Your task to perform on an android device: turn on improve location accuracy Image 0: 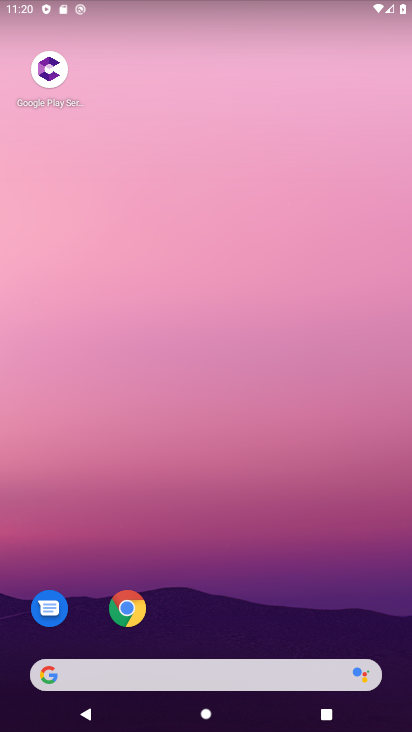
Step 0: drag from (337, 624) to (348, 248)
Your task to perform on an android device: turn on improve location accuracy Image 1: 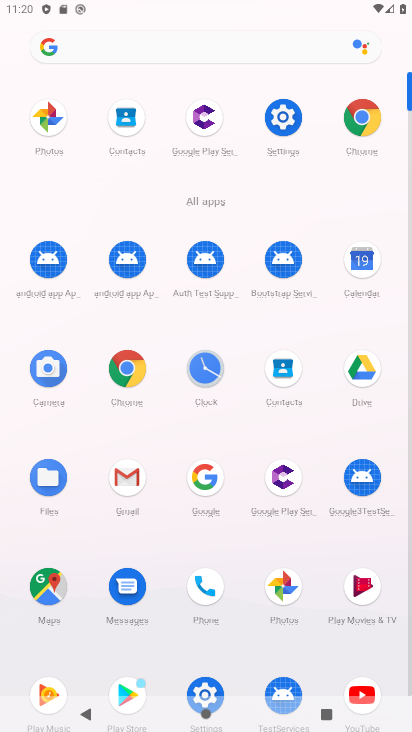
Step 1: click (134, 379)
Your task to perform on an android device: turn on improve location accuracy Image 2: 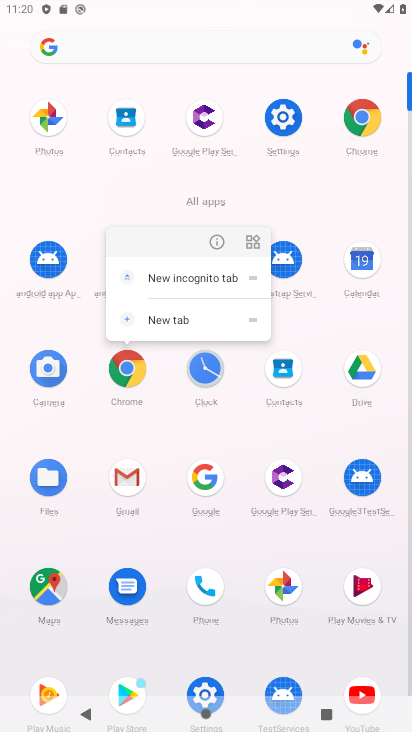
Step 2: click (134, 379)
Your task to perform on an android device: turn on improve location accuracy Image 3: 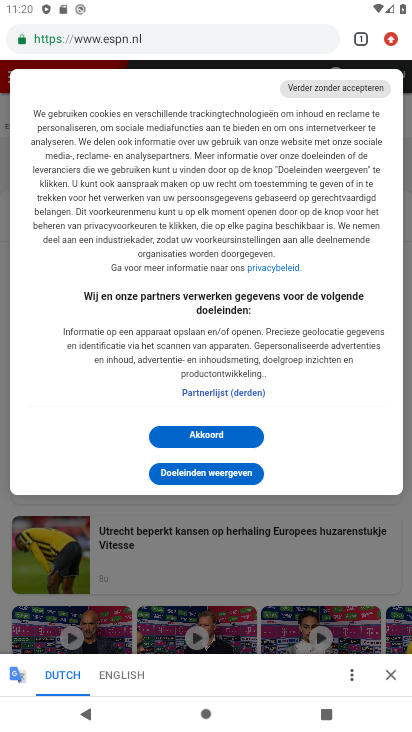
Step 3: press home button
Your task to perform on an android device: turn on improve location accuracy Image 4: 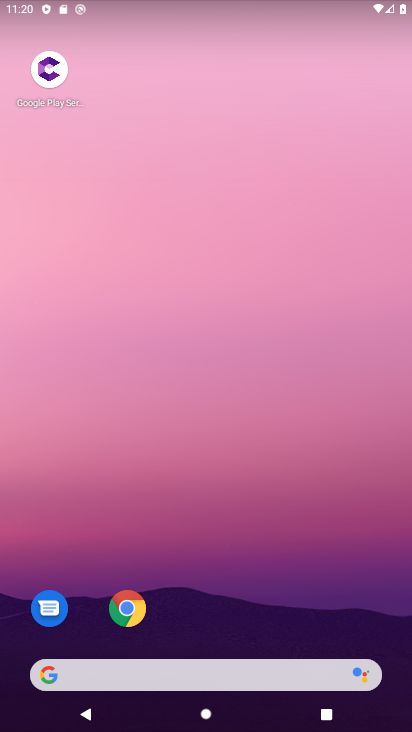
Step 4: drag from (386, 595) to (368, 240)
Your task to perform on an android device: turn on improve location accuracy Image 5: 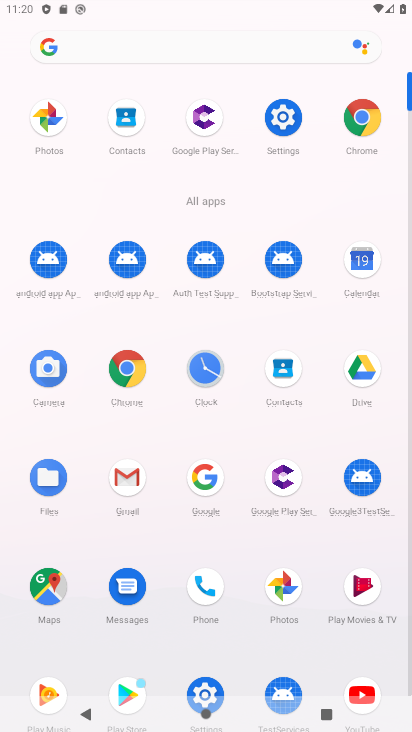
Step 5: click (297, 136)
Your task to perform on an android device: turn on improve location accuracy Image 6: 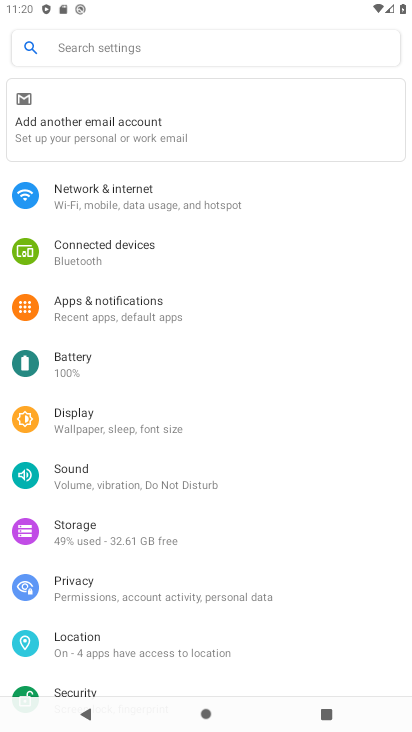
Step 6: drag from (340, 488) to (335, 358)
Your task to perform on an android device: turn on improve location accuracy Image 7: 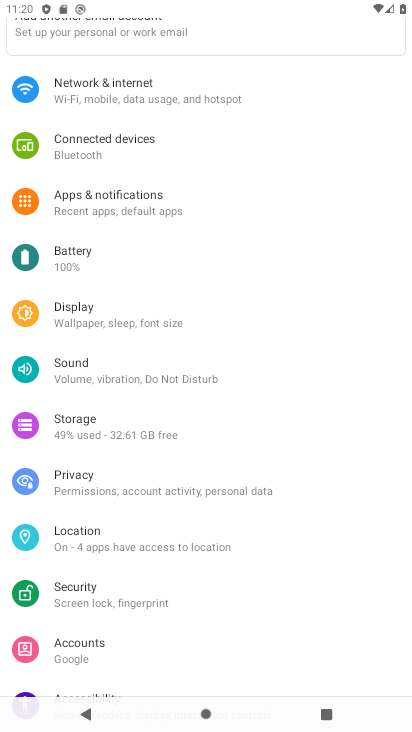
Step 7: drag from (358, 514) to (363, 360)
Your task to perform on an android device: turn on improve location accuracy Image 8: 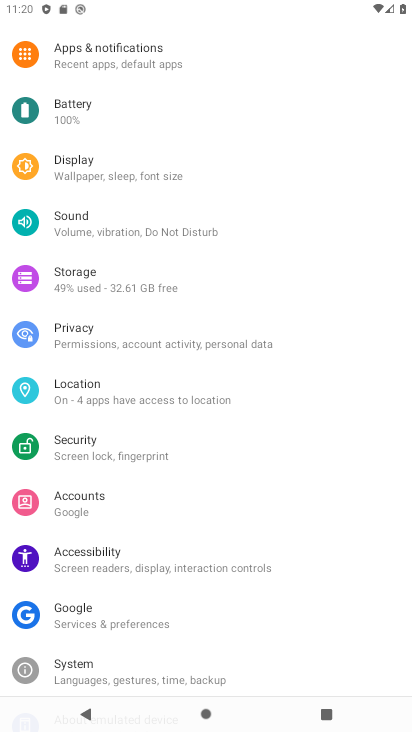
Step 8: drag from (347, 519) to (354, 416)
Your task to perform on an android device: turn on improve location accuracy Image 9: 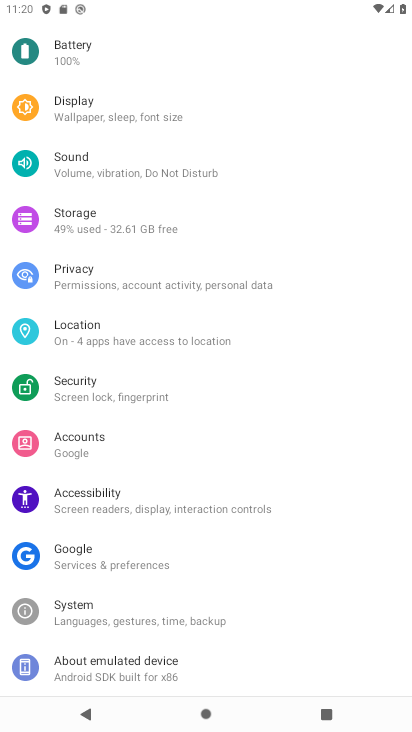
Step 9: drag from (357, 552) to (365, 427)
Your task to perform on an android device: turn on improve location accuracy Image 10: 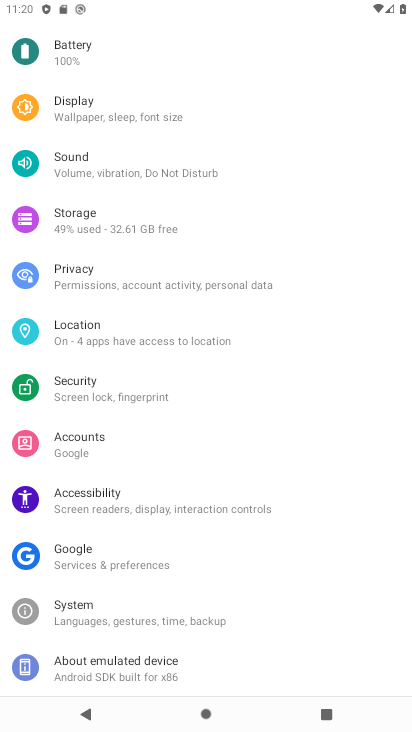
Step 10: drag from (346, 570) to (370, 390)
Your task to perform on an android device: turn on improve location accuracy Image 11: 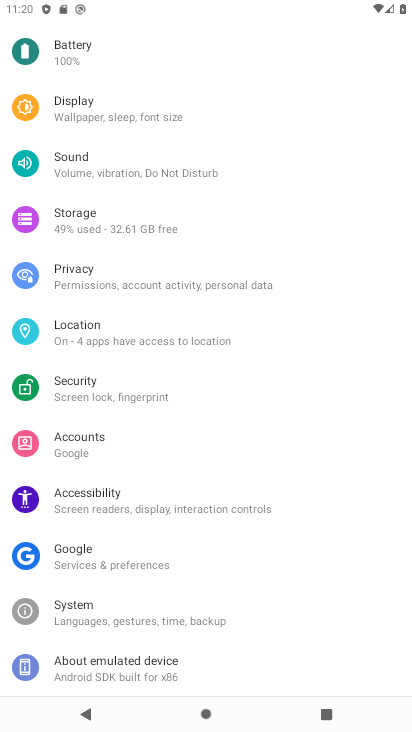
Step 11: drag from (384, 331) to (366, 468)
Your task to perform on an android device: turn on improve location accuracy Image 12: 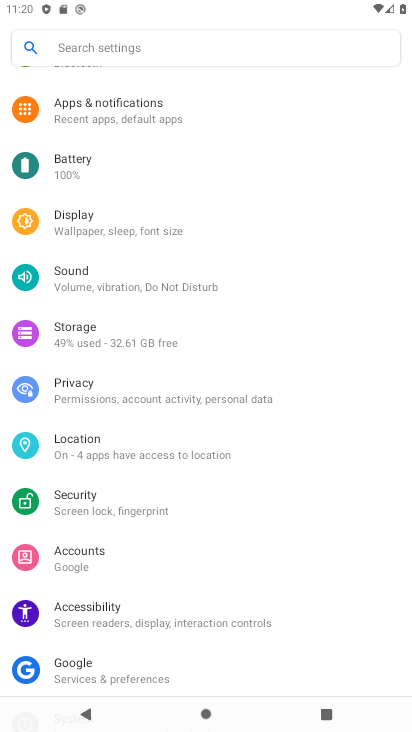
Step 12: drag from (352, 220) to (365, 371)
Your task to perform on an android device: turn on improve location accuracy Image 13: 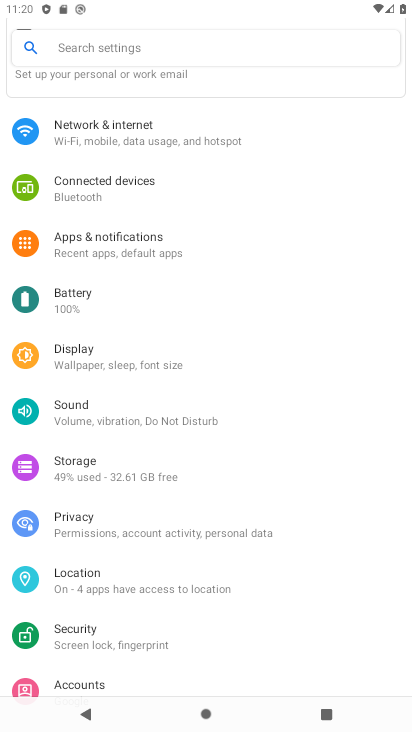
Step 13: drag from (338, 213) to (341, 295)
Your task to perform on an android device: turn on improve location accuracy Image 14: 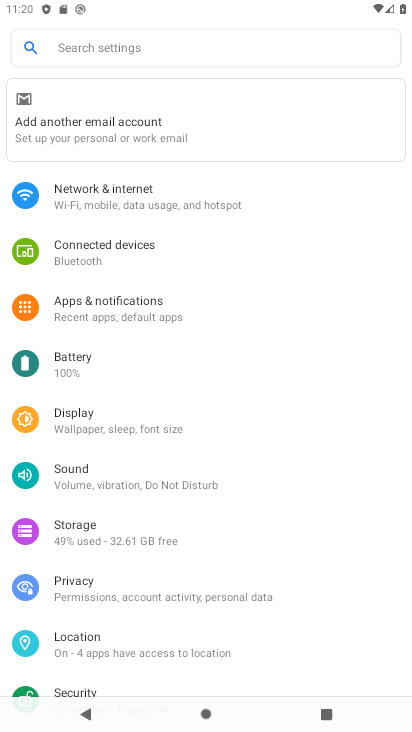
Step 14: drag from (315, 455) to (326, 241)
Your task to perform on an android device: turn on improve location accuracy Image 15: 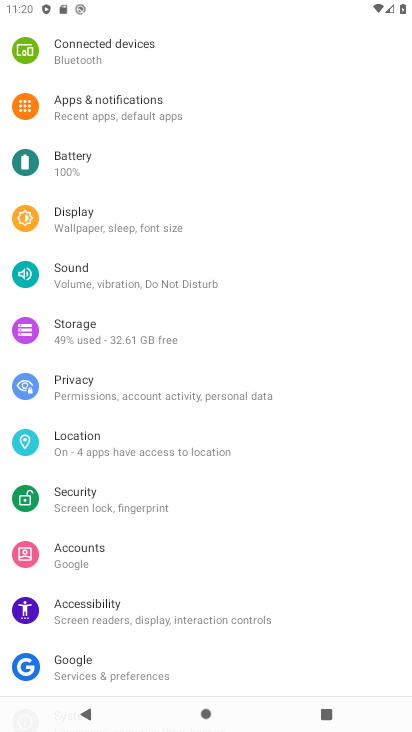
Step 15: drag from (314, 474) to (325, 344)
Your task to perform on an android device: turn on improve location accuracy Image 16: 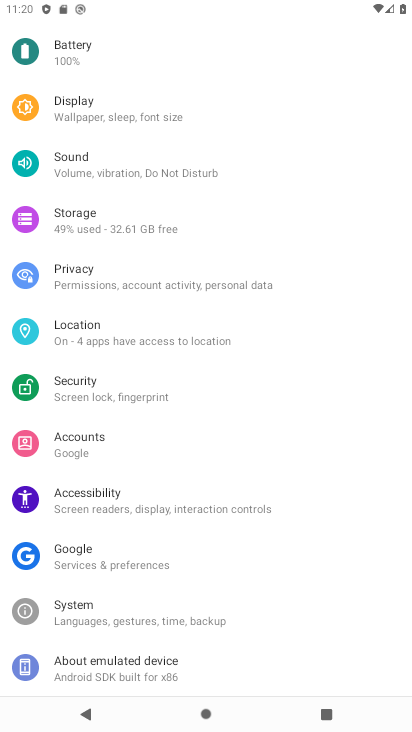
Step 16: click (147, 325)
Your task to perform on an android device: turn on improve location accuracy Image 17: 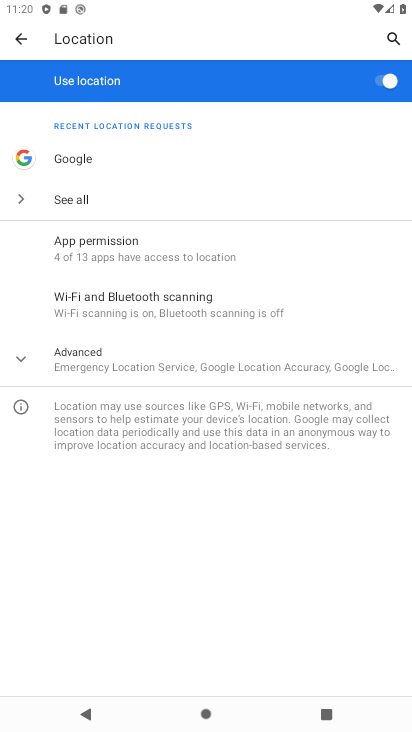
Step 17: click (265, 355)
Your task to perform on an android device: turn on improve location accuracy Image 18: 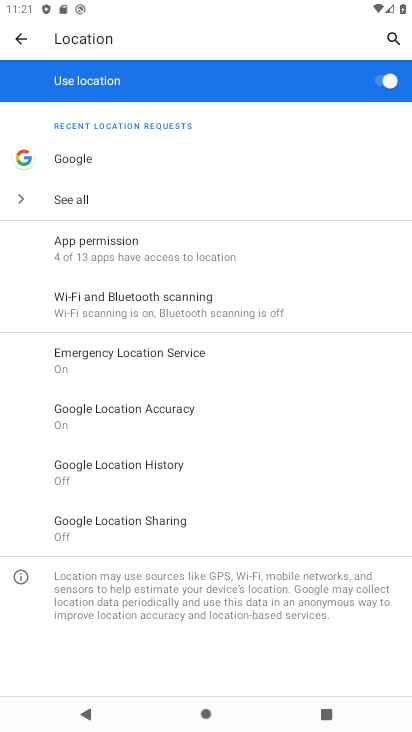
Step 18: click (176, 421)
Your task to perform on an android device: turn on improve location accuracy Image 19: 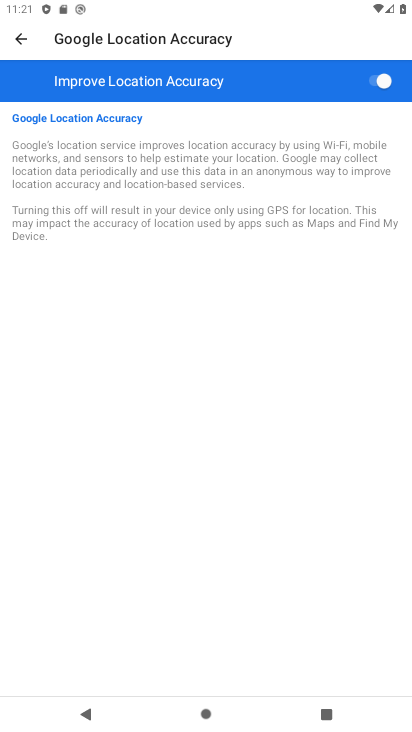
Step 19: task complete